Your task to perform on an android device: What's a good restaurant in Las Vegas? Image 0: 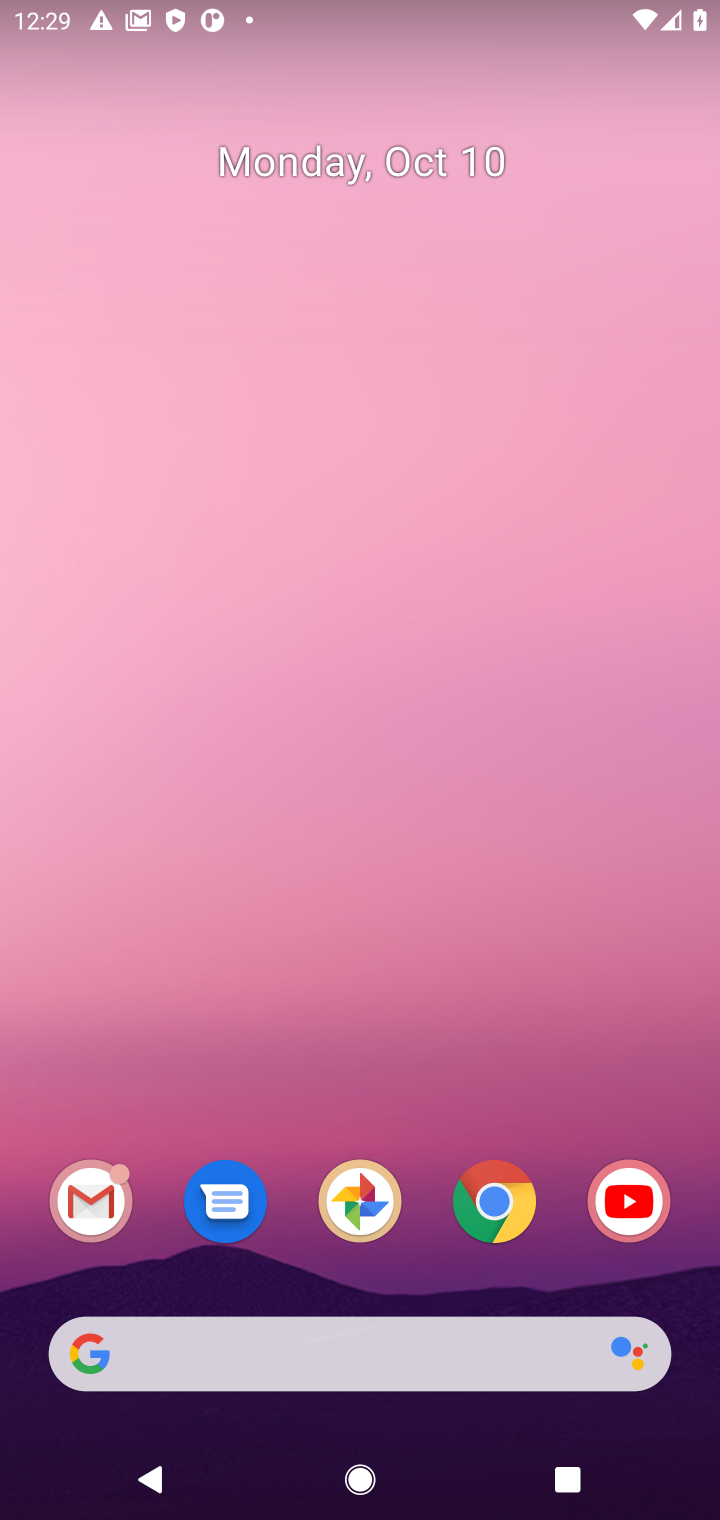
Step 0: click (501, 1214)
Your task to perform on an android device: What's a good restaurant in Las Vegas? Image 1: 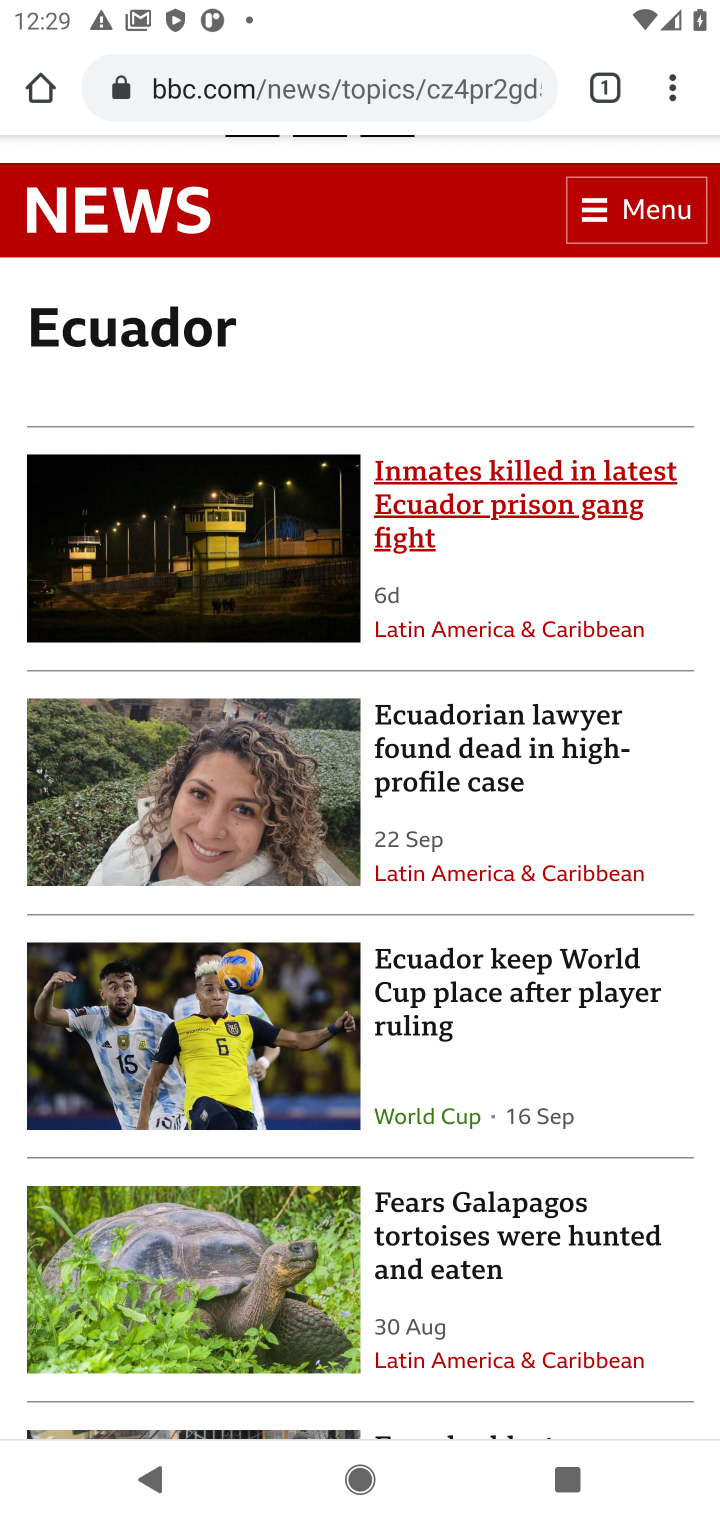
Step 1: click (329, 92)
Your task to perform on an android device: What's a good restaurant in Las Vegas? Image 2: 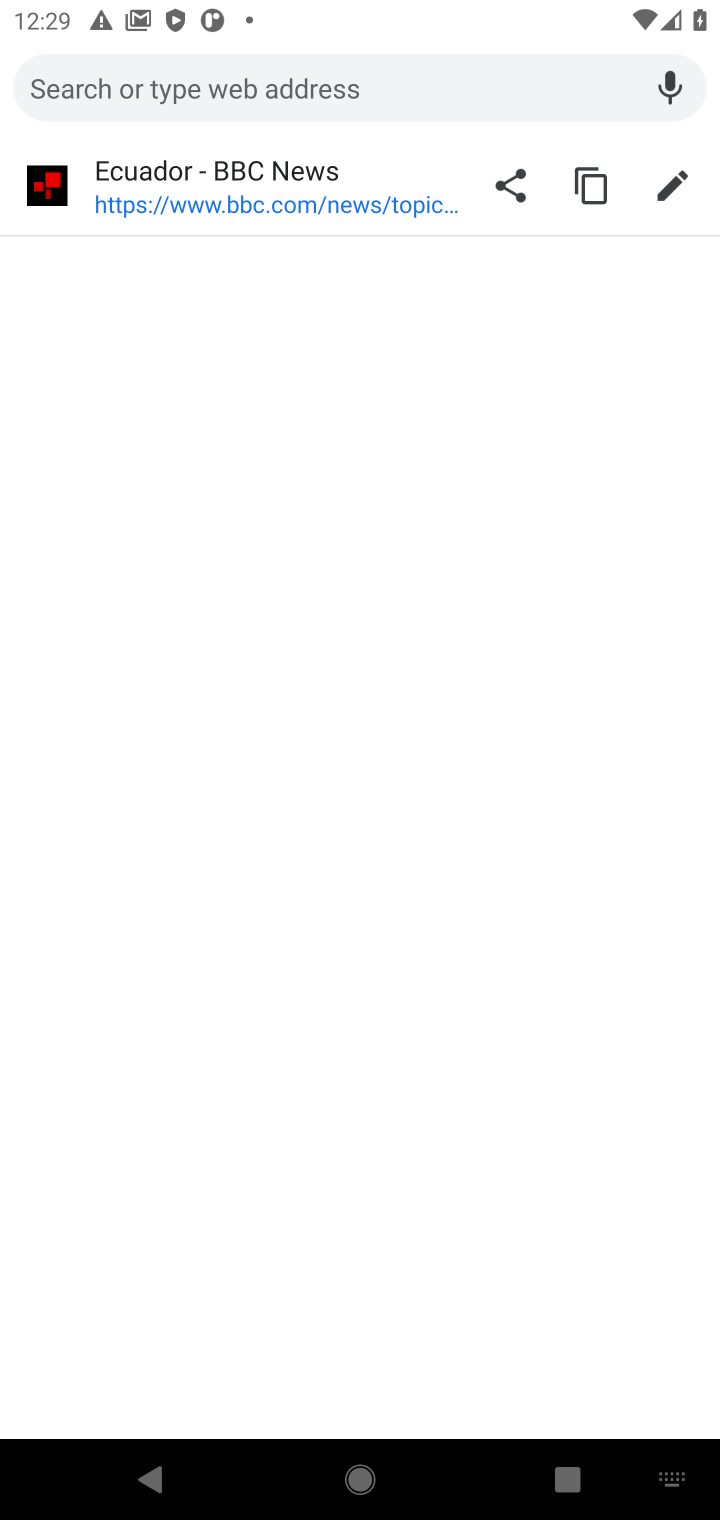
Step 2: type "a good restaurant in Las Vegas"
Your task to perform on an android device: What's a good restaurant in Las Vegas? Image 3: 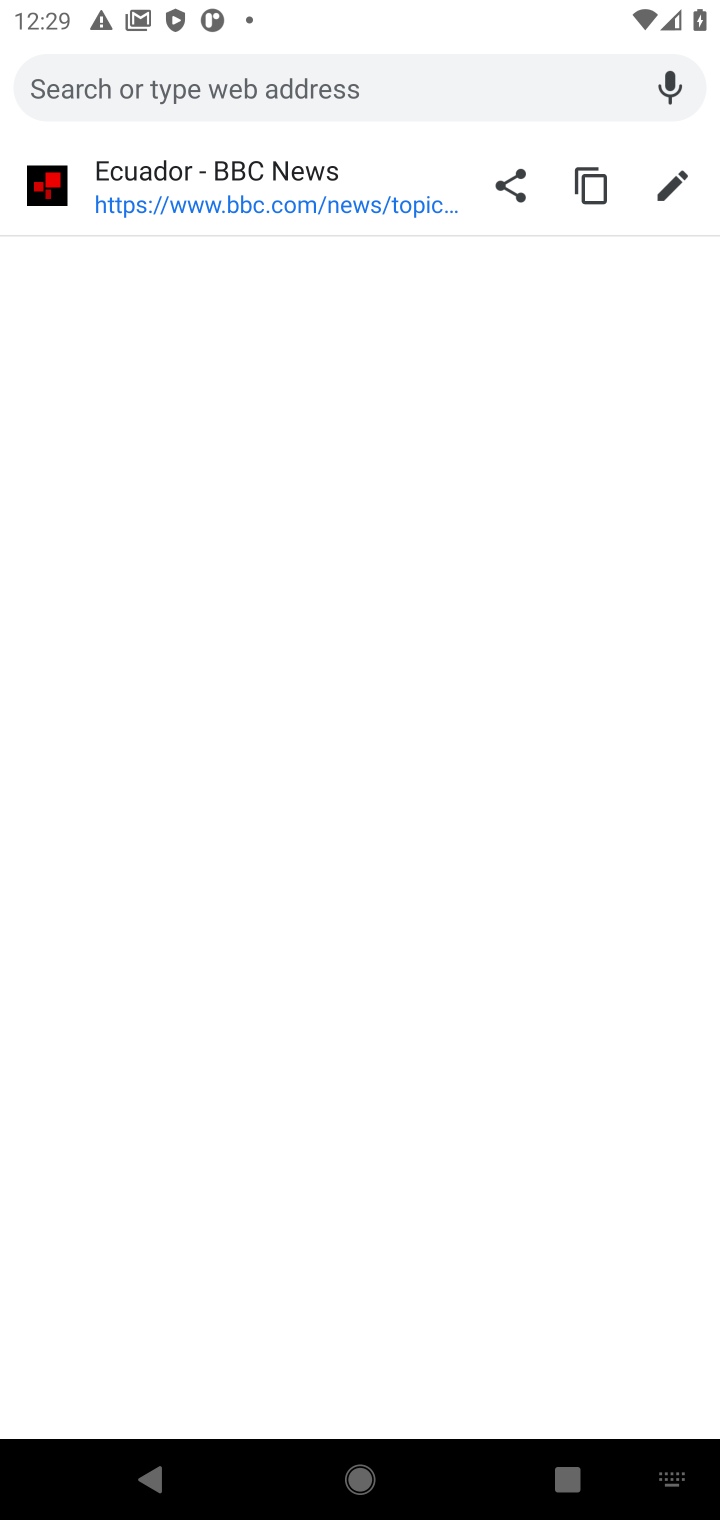
Step 3: click (349, 96)
Your task to perform on an android device: What's a good restaurant in Las Vegas? Image 4: 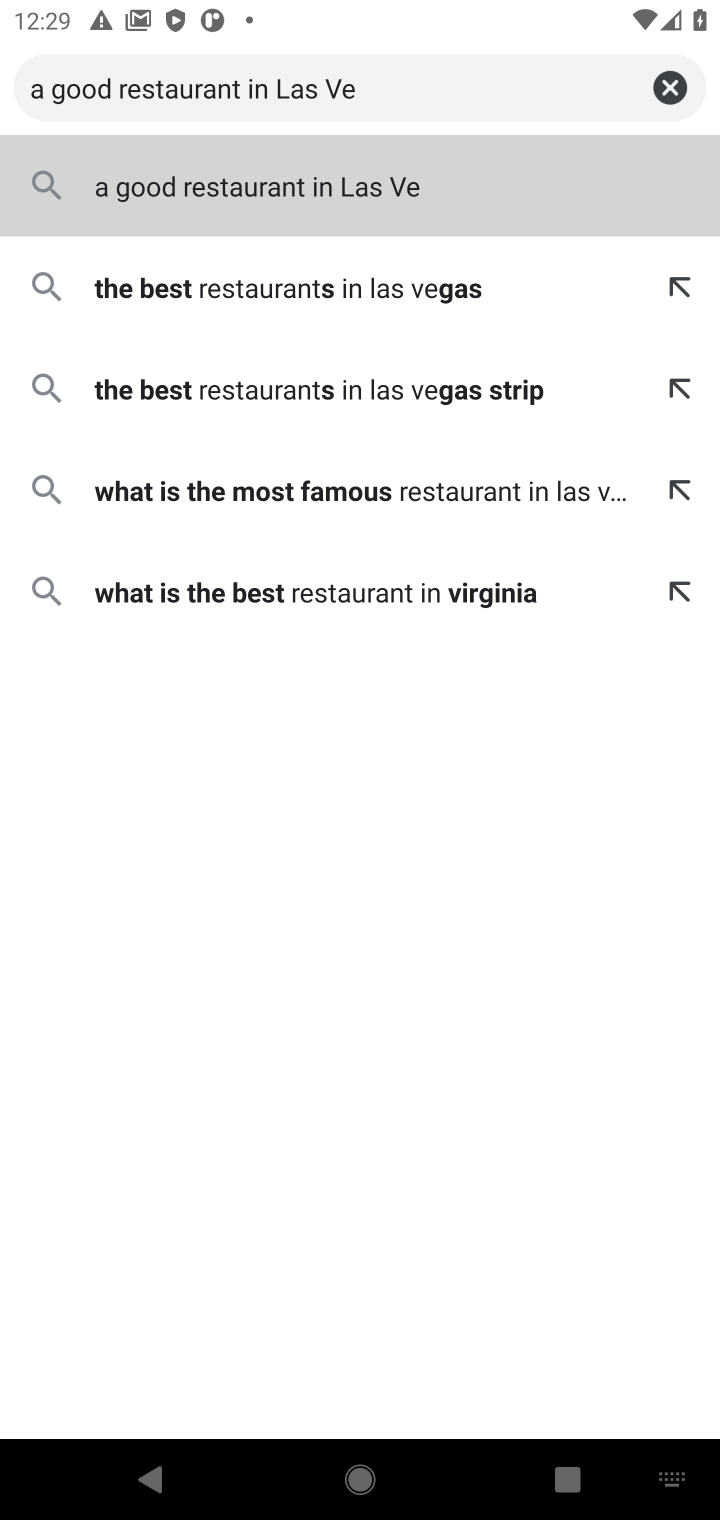
Step 4: click (345, 295)
Your task to perform on an android device: What's a good restaurant in Las Vegas? Image 5: 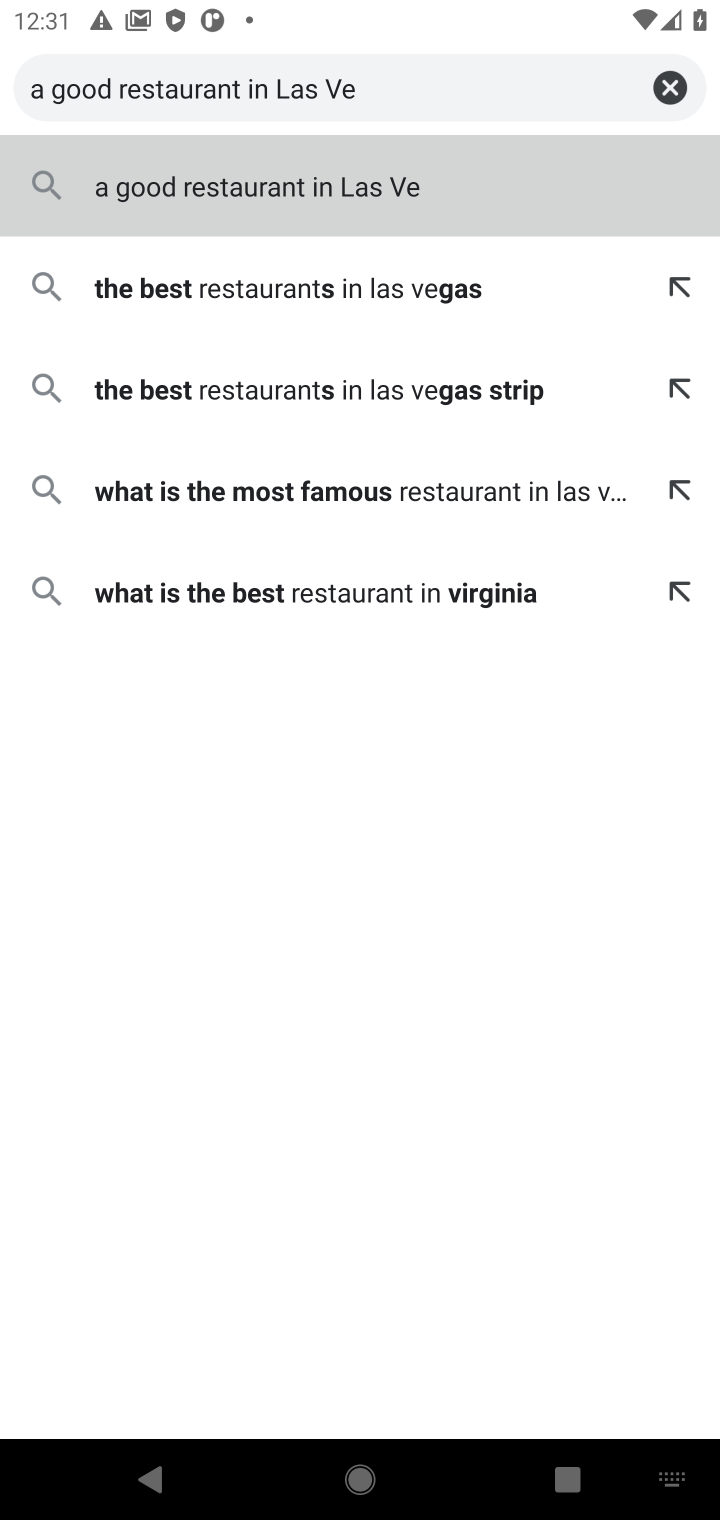
Step 5: click (298, 301)
Your task to perform on an android device: What's a good restaurant in Las Vegas? Image 6: 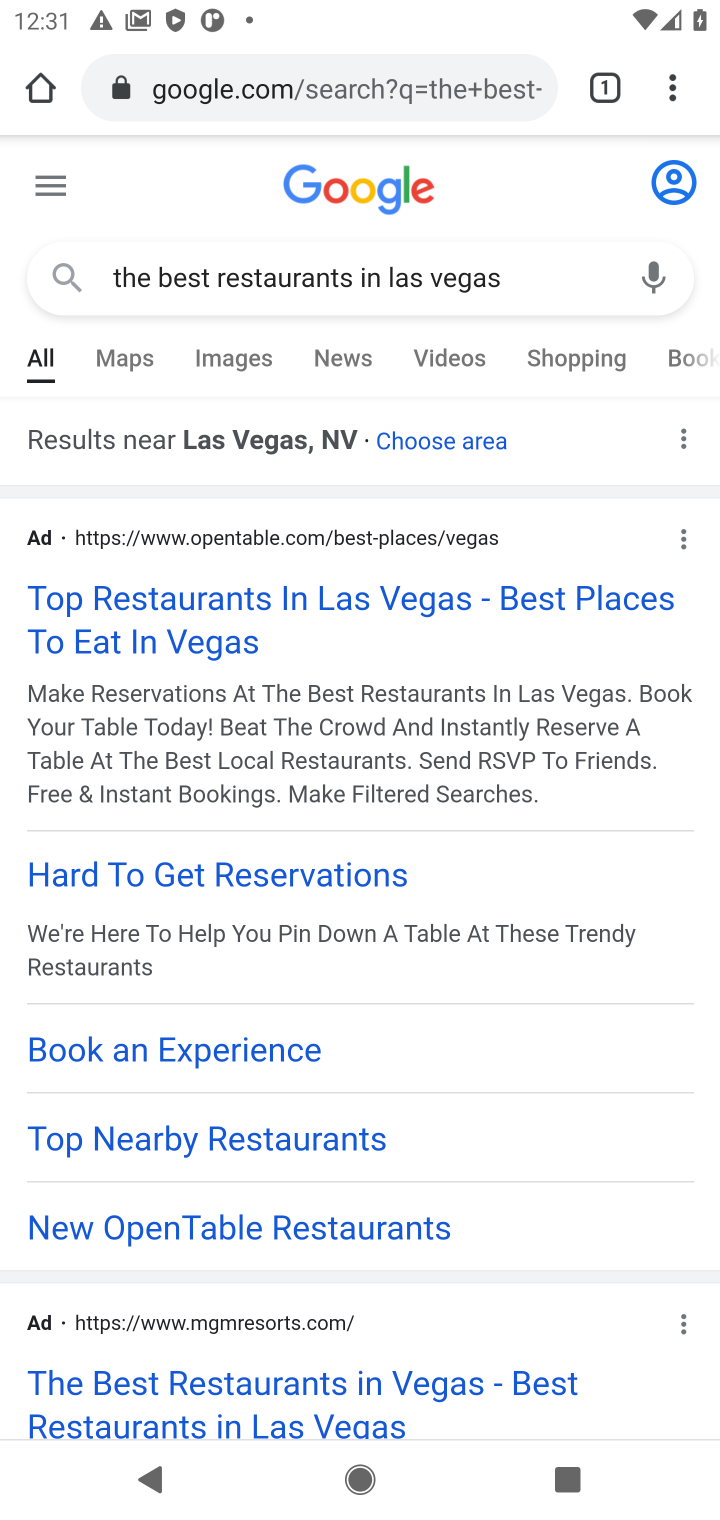
Step 6: click (193, 663)
Your task to perform on an android device: What's a good restaurant in Las Vegas? Image 7: 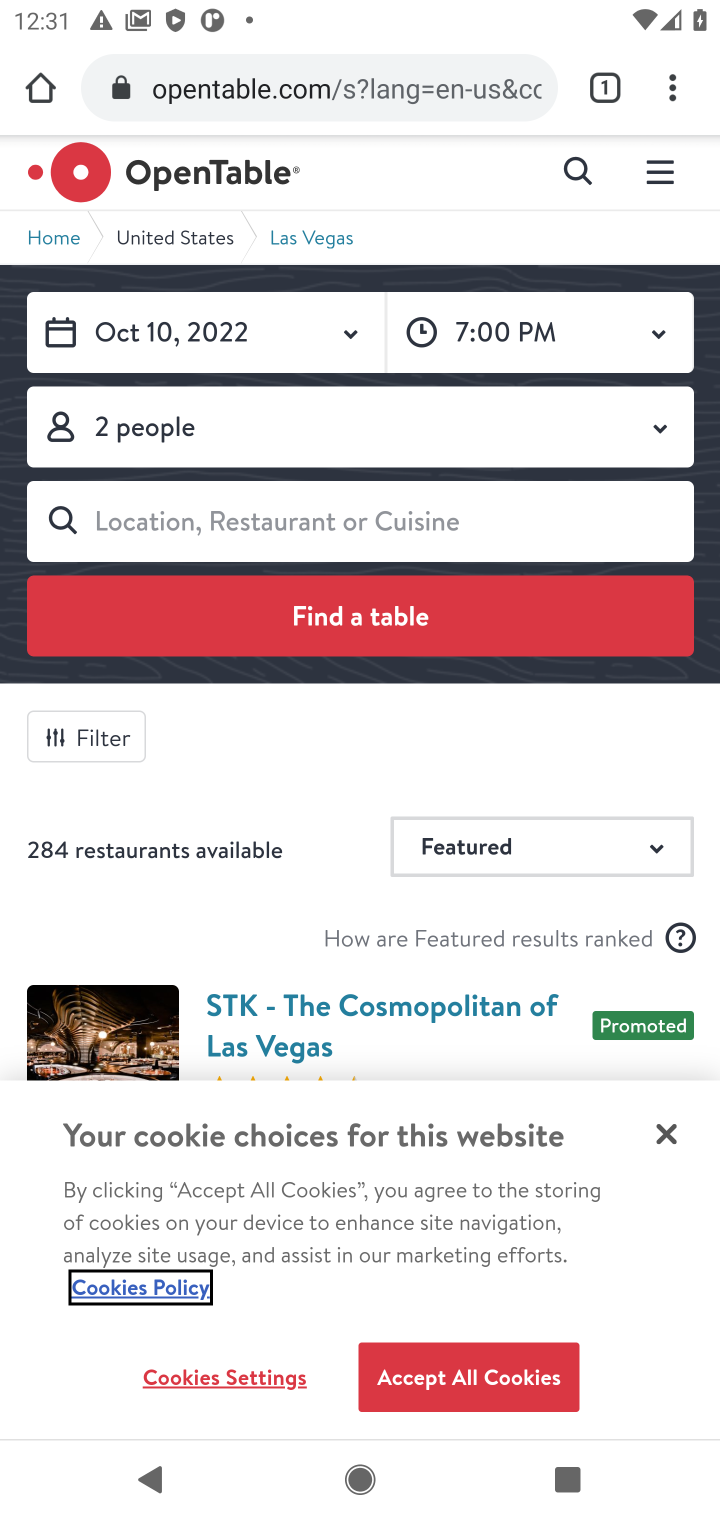
Step 7: task complete